Your task to perform on an android device: Go to Google Image 0: 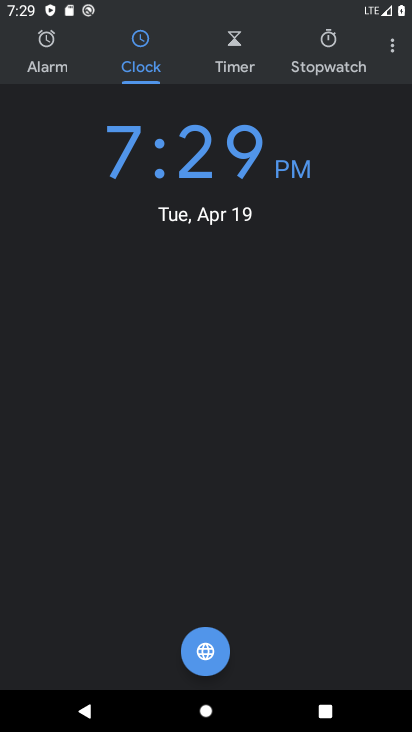
Step 0: press home button
Your task to perform on an android device: Go to Google Image 1: 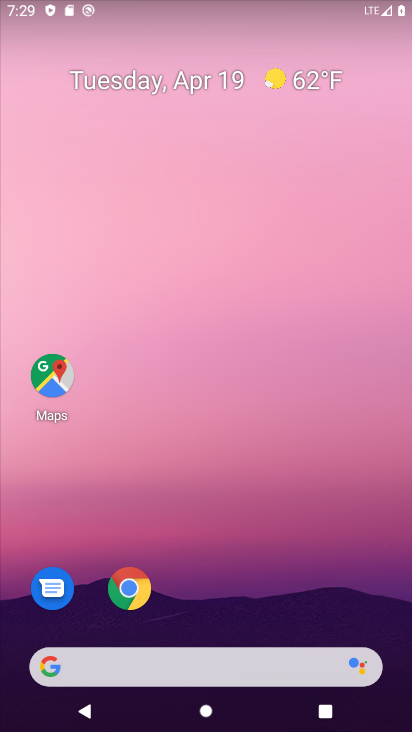
Step 1: click (184, 664)
Your task to perform on an android device: Go to Google Image 2: 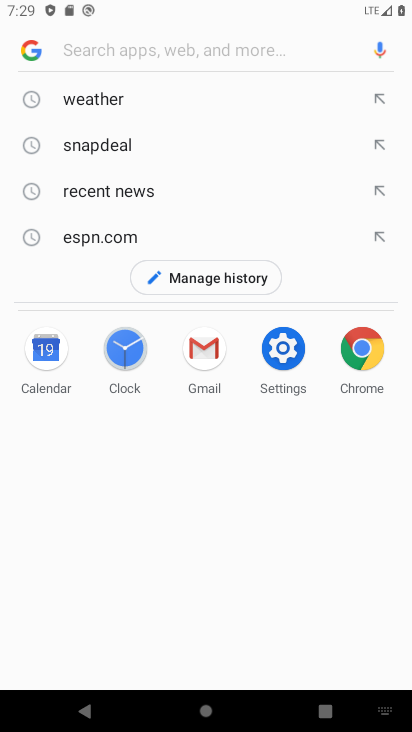
Step 2: task complete